Your task to perform on an android device: check android version Image 0: 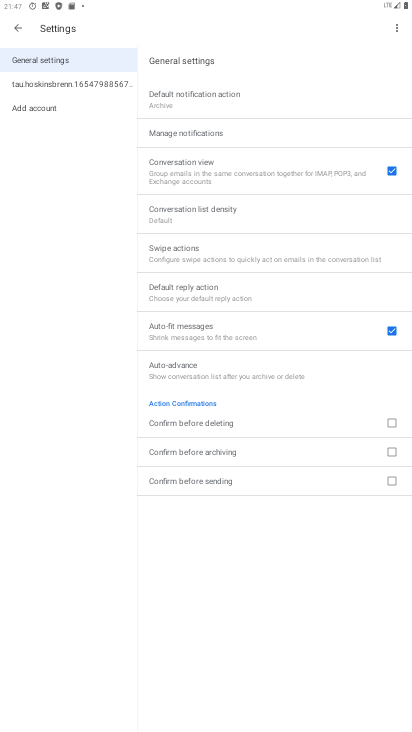
Step 0: click (301, 174)
Your task to perform on an android device: check android version Image 1: 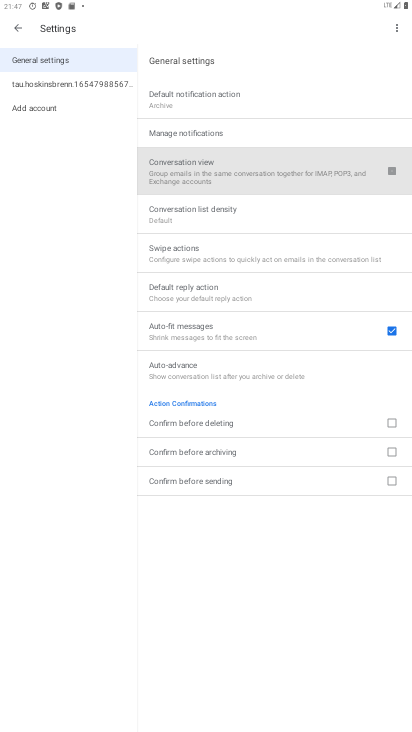
Step 1: drag from (231, 76) to (307, 727)
Your task to perform on an android device: check android version Image 2: 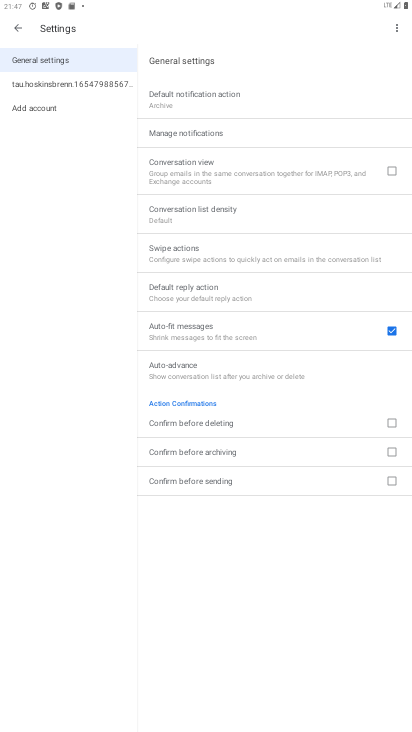
Step 2: click (84, 84)
Your task to perform on an android device: check android version Image 3: 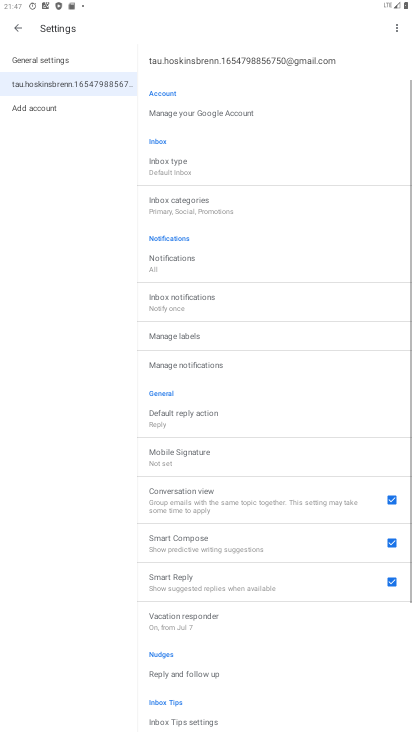
Step 3: drag from (204, 526) to (266, 106)
Your task to perform on an android device: check android version Image 4: 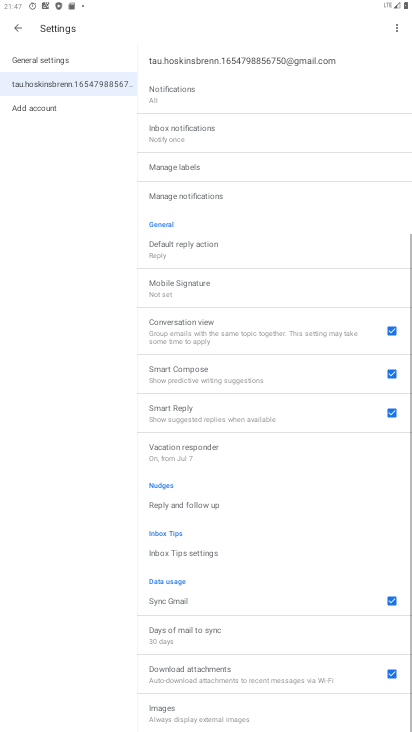
Step 4: drag from (283, 601) to (285, 272)
Your task to perform on an android device: check android version Image 5: 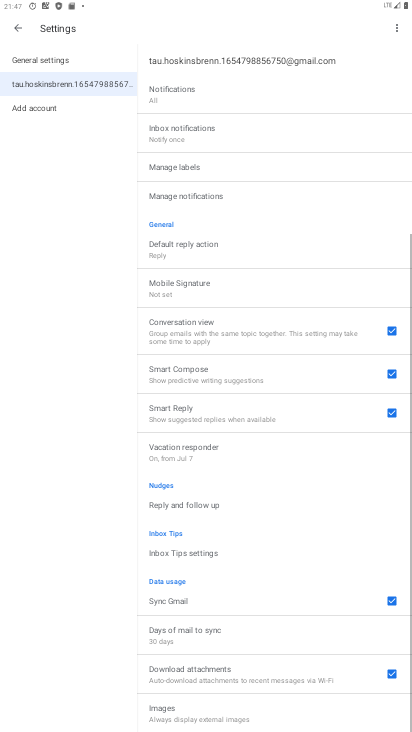
Step 5: drag from (276, 205) to (340, 721)
Your task to perform on an android device: check android version Image 6: 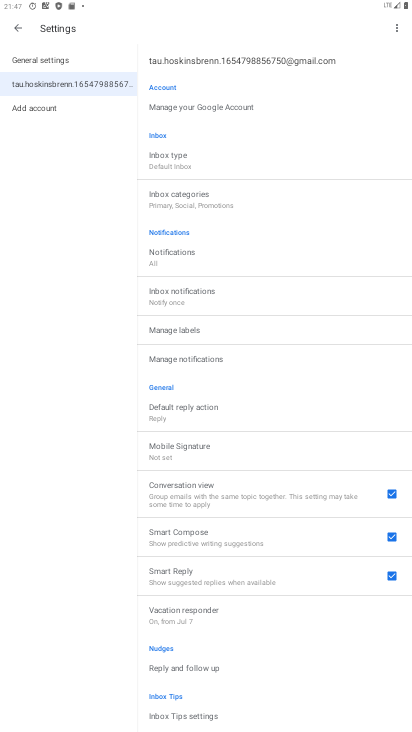
Step 6: press home button
Your task to perform on an android device: check android version Image 7: 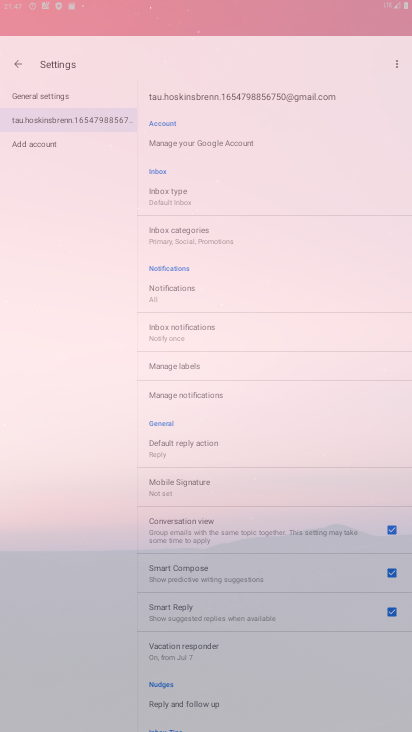
Step 7: drag from (193, 565) to (241, 190)
Your task to perform on an android device: check android version Image 8: 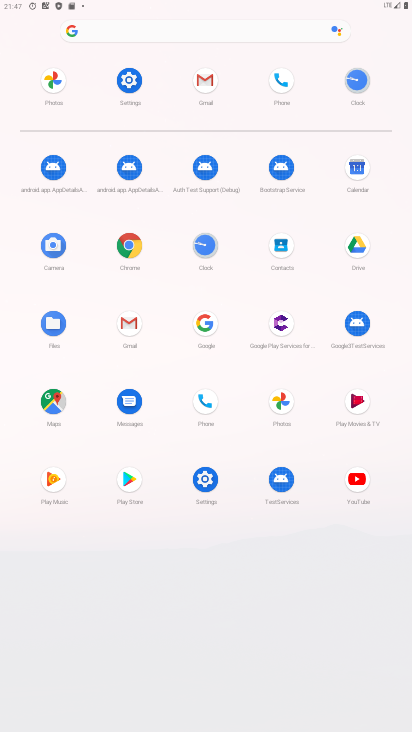
Step 8: click (132, 84)
Your task to perform on an android device: check android version Image 9: 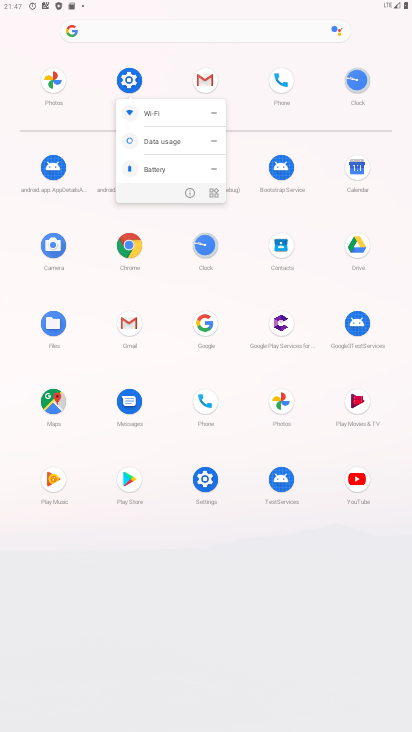
Step 9: click (190, 191)
Your task to perform on an android device: check android version Image 10: 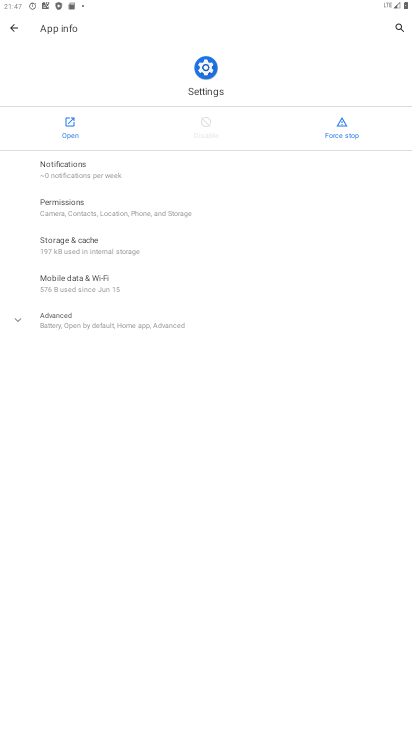
Step 10: click (63, 126)
Your task to perform on an android device: check android version Image 11: 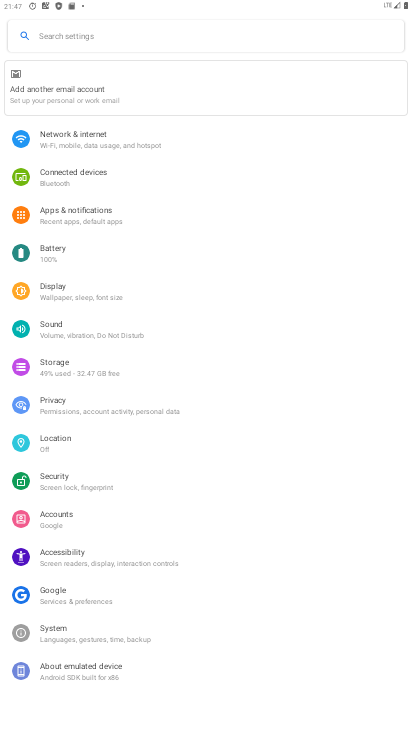
Step 11: drag from (213, 541) to (297, 125)
Your task to perform on an android device: check android version Image 12: 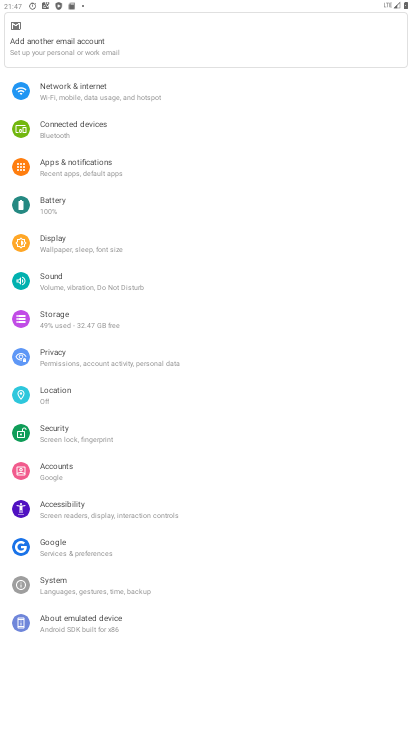
Step 12: click (116, 617)
Your task to perform on an android device: check android version Image 13: 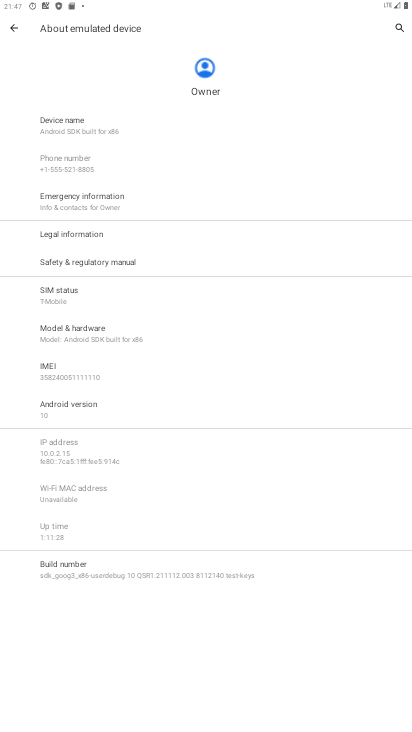
Step 13: drag from (222, 585) to (283, 189)
Your task to perform on an android device: check android version Image 14: 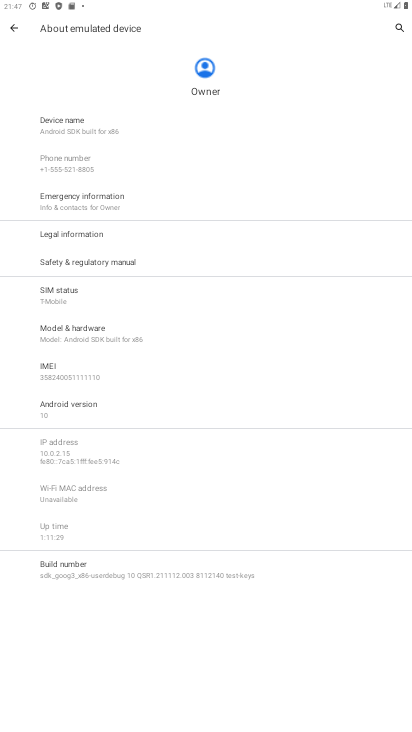
Step 14: drag from (197, 468) to (259, 191)
Your task to perform on an android device: check android version Image 15: 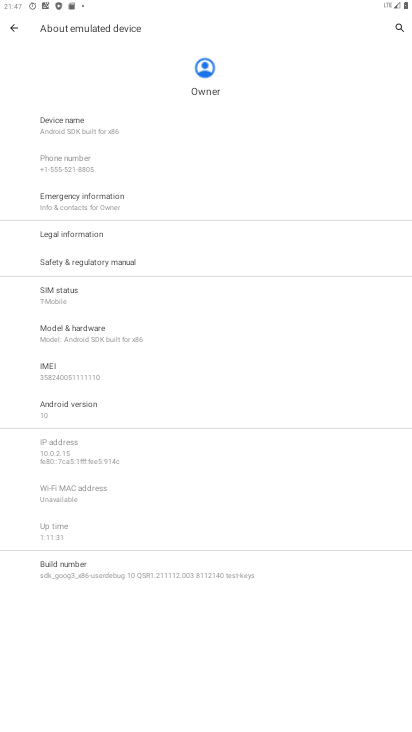
Step 15: click (106, 399)
Your task to perform on an android device: check android version Image 16: 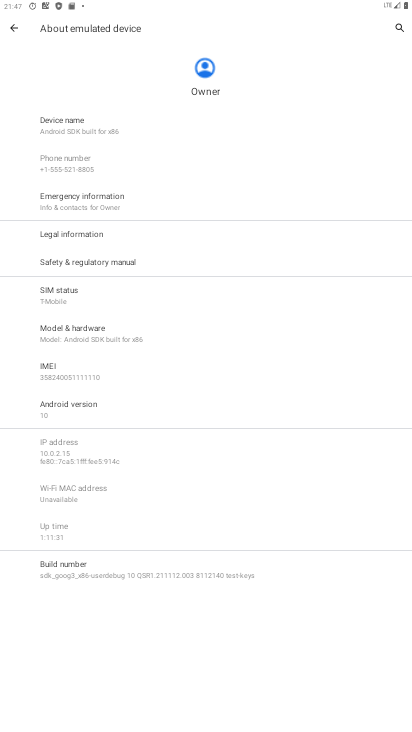
Step 16: click (106, 399)
Your task to perform on an android device: check android version Image 17: 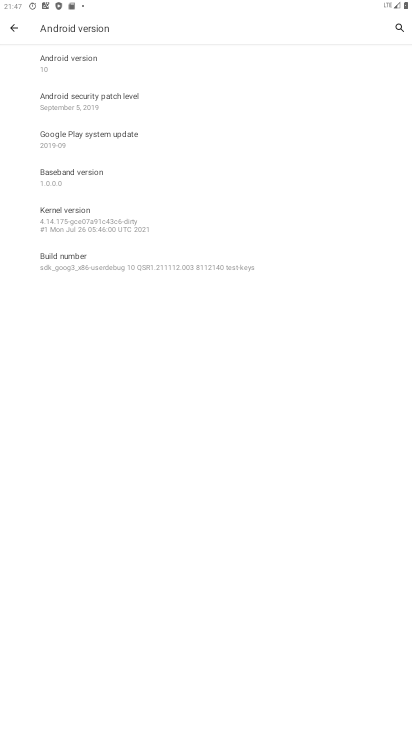
Step 17: drag from (296, 312) to (296, 163)
Your task to perform on an android device: check android version Image 18: 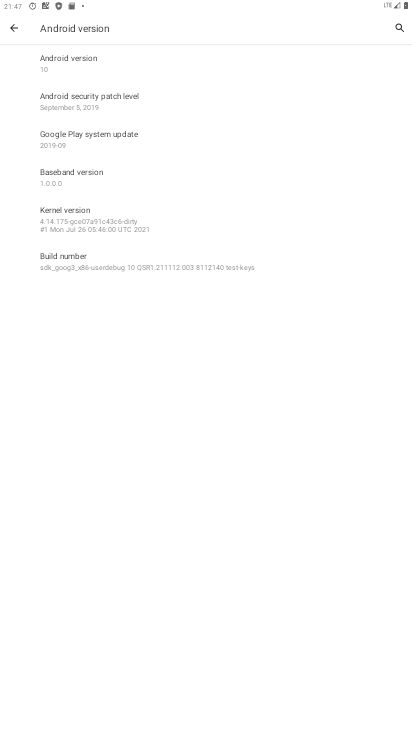
Step 18: click (129, 52)
Your task to perform on an android device: check android version Image 19: 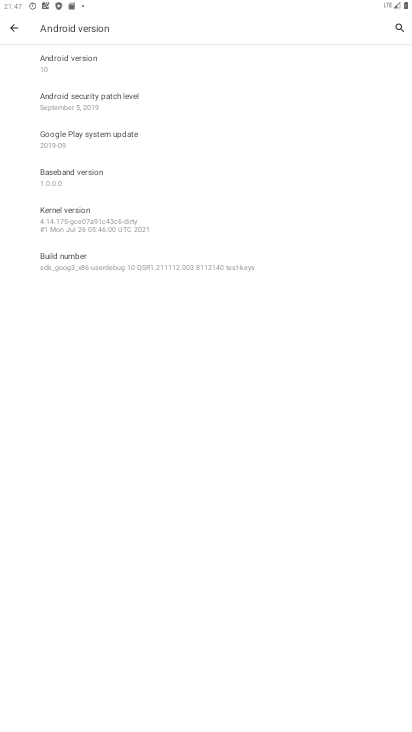
Step 19: click (129, 52)
Your task to perform on an android device: check android version Image 20: 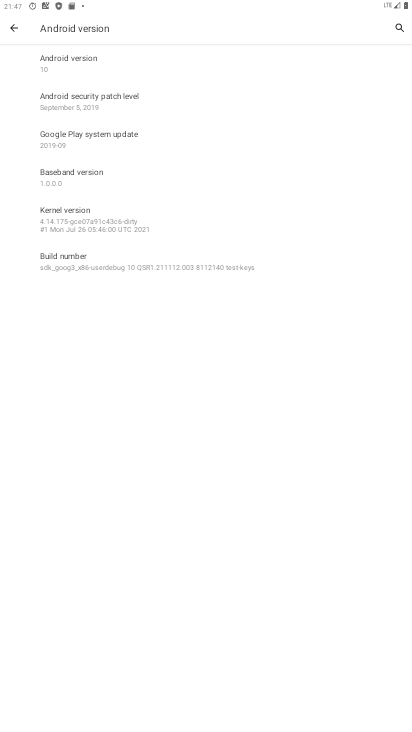
Step 20: task complete